Your task to perform on an android device: Open accessibility settings Image 0: 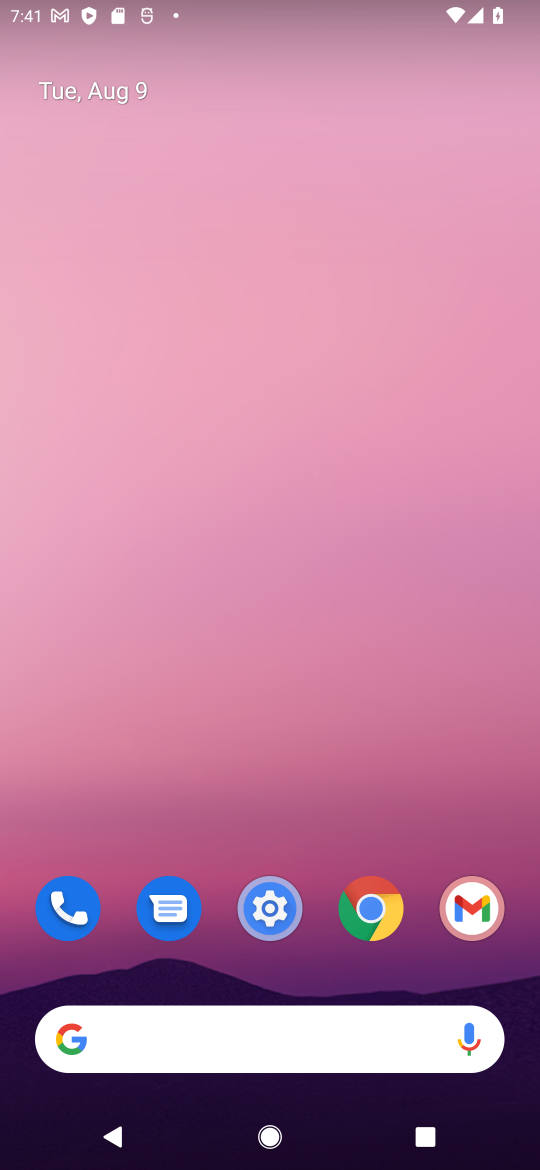
Step 0: drag from (316, 997) to (425, 92)
Your task to perform on an android device: Open accessibility settings Image 1: 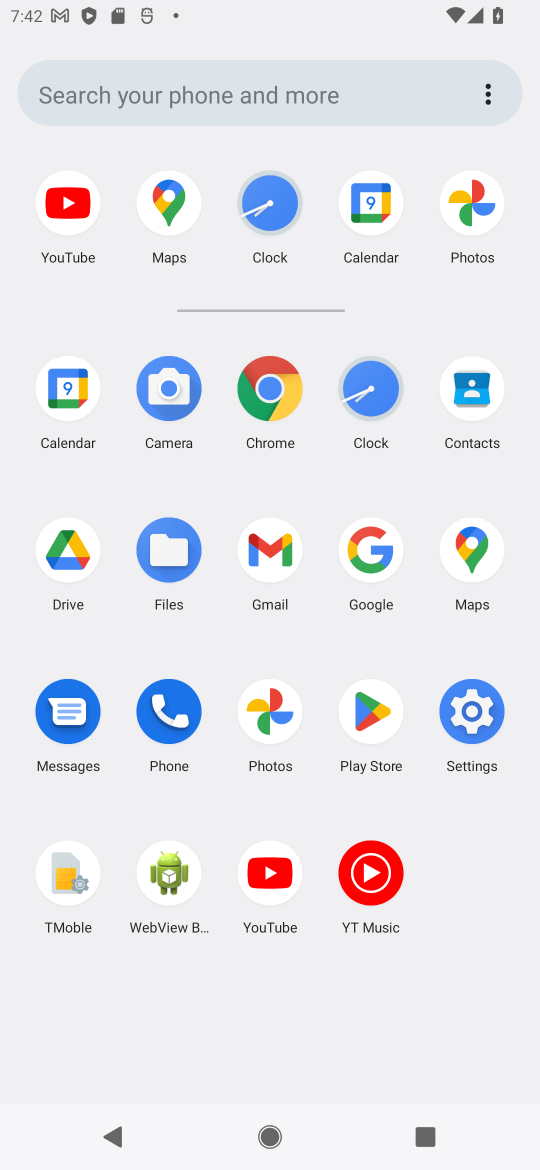
Step 1: click (469, 719)
Your task to perform on an android device: Open accessibility settings Image 2: 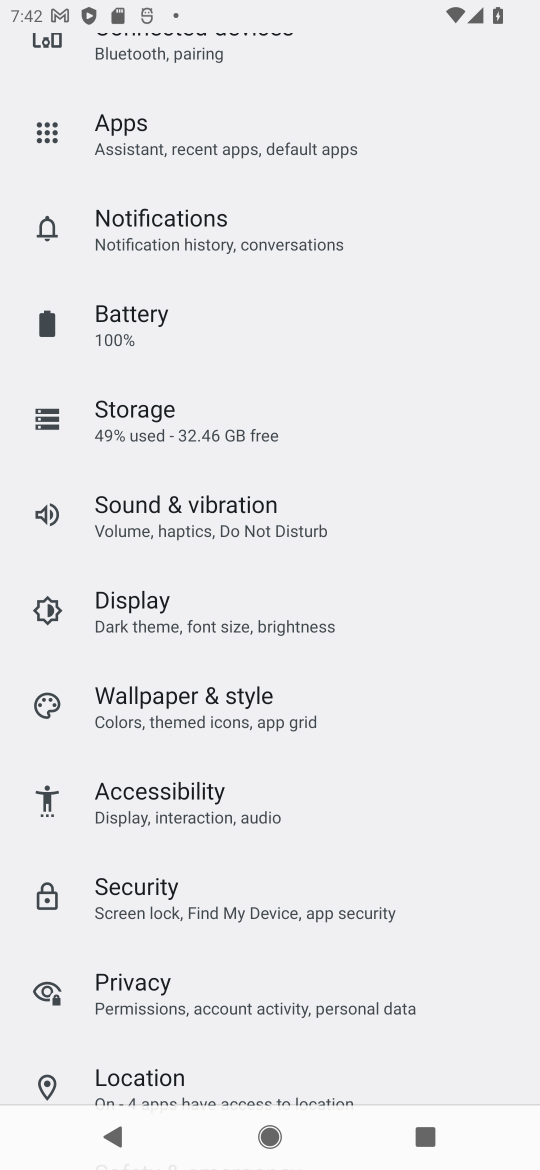
Step 2: click (161, 794)
Your task to perform on an android device: Open accessibility settings Image 3: 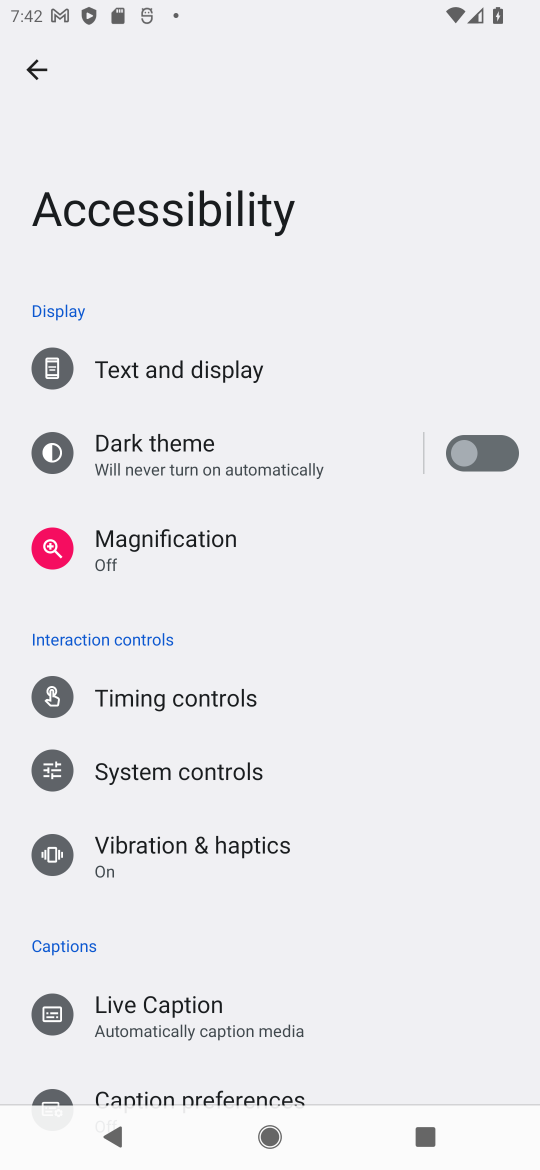
Step 3: task complete